Your task to perform on an android device: turn off picture-in-picture Image 0: 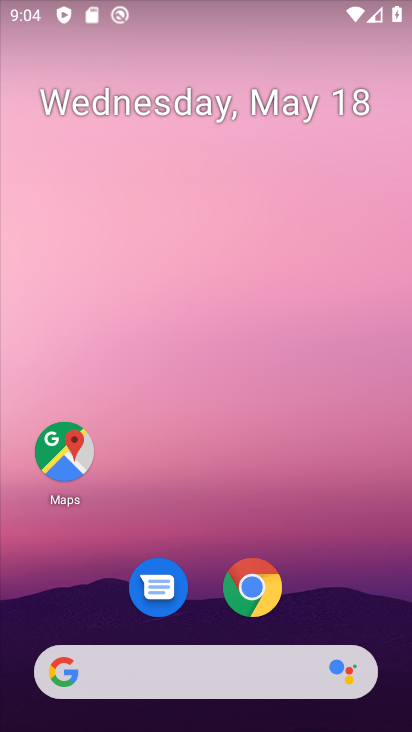
Step 0: drag from (384, 582) to (328, 135)
Your task to perform on an android device: turn off picture-in-picture Image 1: 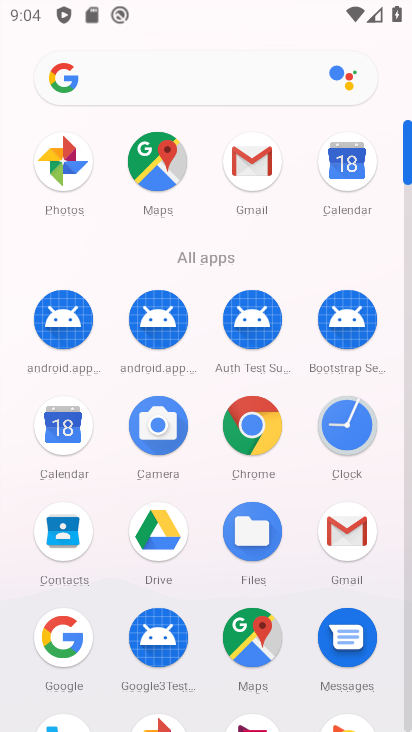
Step 1: drag from (303, 575) to (302, 257)
Your task to perform on an android device: turn off picture-in-picture Image 2: 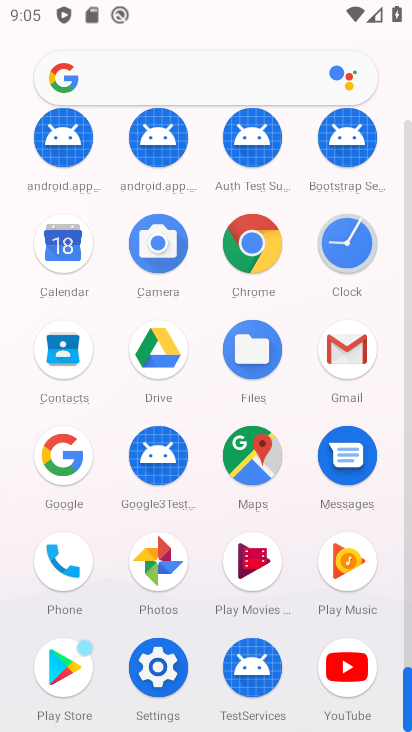
Step 2: click (150, 678)
Your task to perform on an android device: turn off picture-in-picture Image 3: 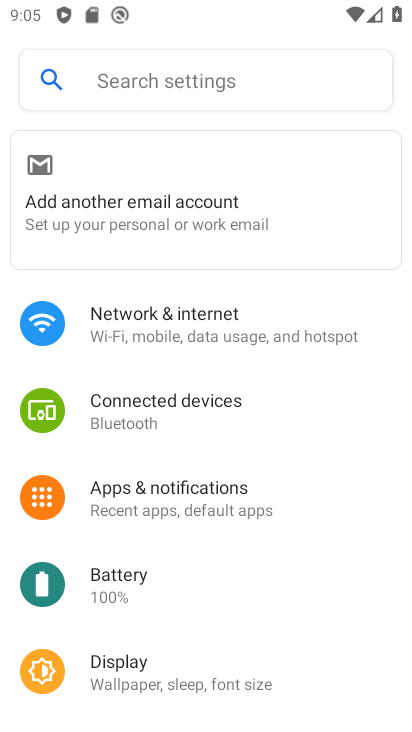
Step 3: drag from (248, 639) to (310, 273)
Your task to perform on an android device: turn off picture-in-picture Image 4: 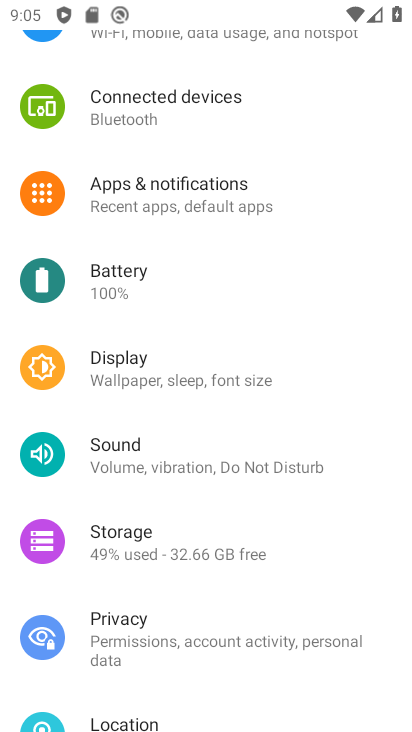
Step 4: drag from (310, 574) to (321, 310)
Your task to perform on an android device: turn off picture-in-picture Image 5: 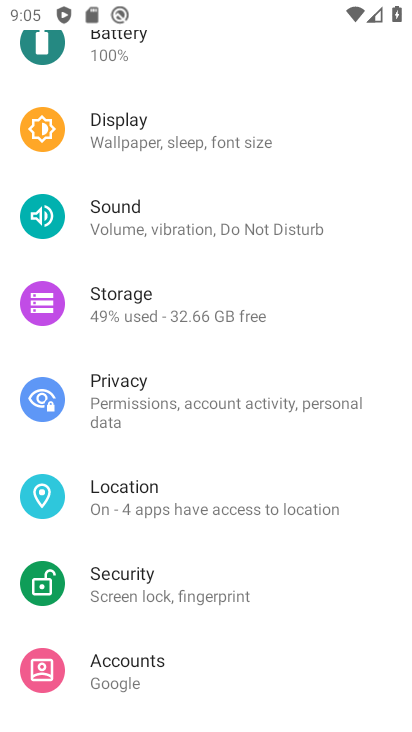
Step 5: drag from (304, 188) to (292, 572)
Your task to perform on an android device: turn off picture-in-picture Image 6: 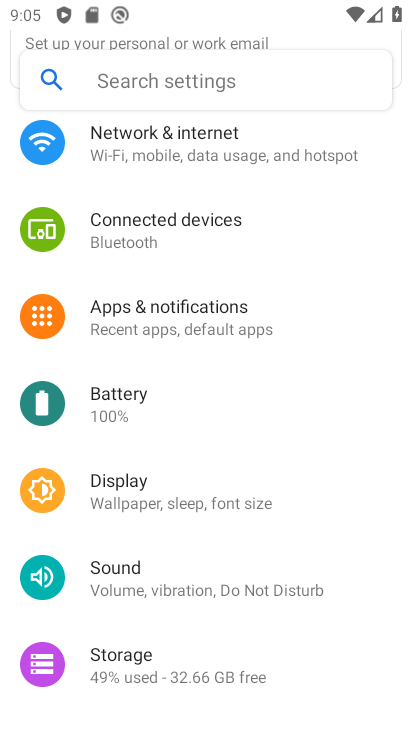
Step 6: click (203, 301)
Your task to perform on an android device: turn off picture-in-picture Image 7: 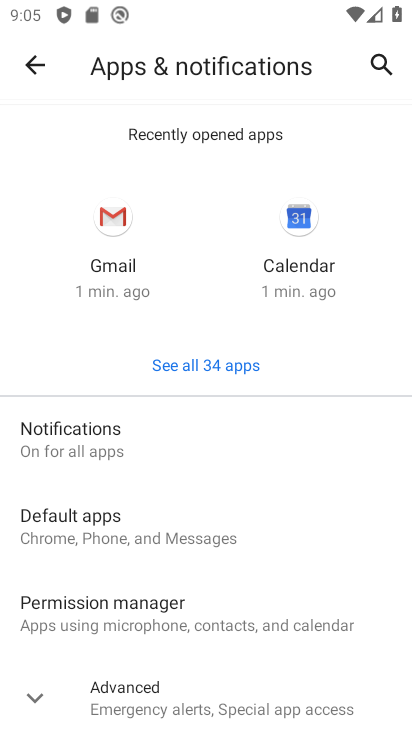
Step 7: drag from (275, 689) to (220, 255)
Your task to perform on an android device: turn off picture-in-picture Image 8: 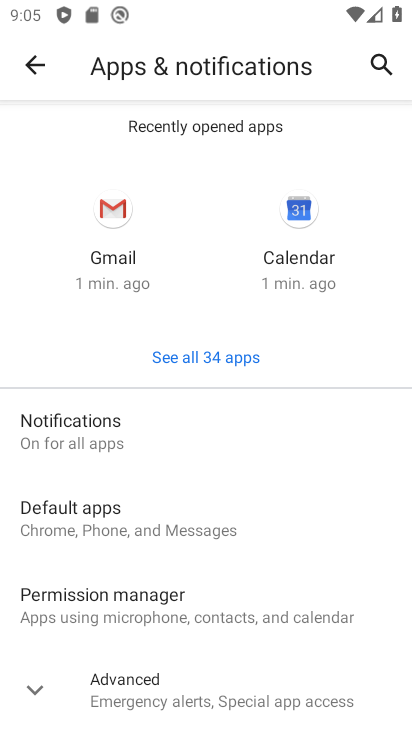
Step 8: click (221, 709)
Your task to perform on an android device: turn off picture-in-picture Image 9: 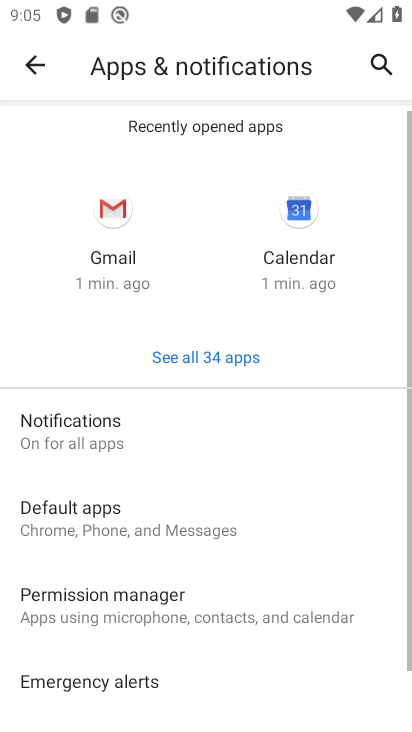
Step 9: drag from (236, 685) to (234, 320)
Your task to perform on an android device: turn off picture-in-picture Image 10: 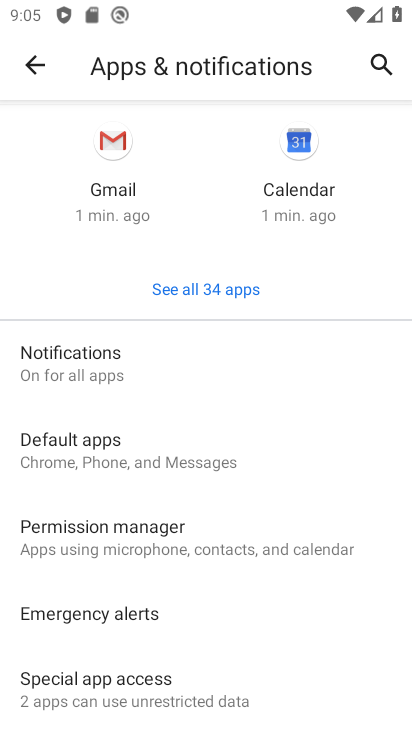
Step 10: click (184, 684)
Your task to perform on an android device: turn off picture-in-picture Image 11: 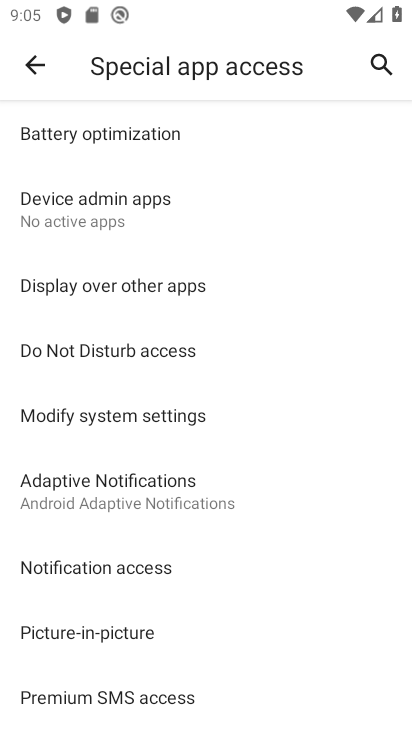
Step 11: click (180, 633)
Your task to perform on an android device: turn off picture-in-picture Image 12: 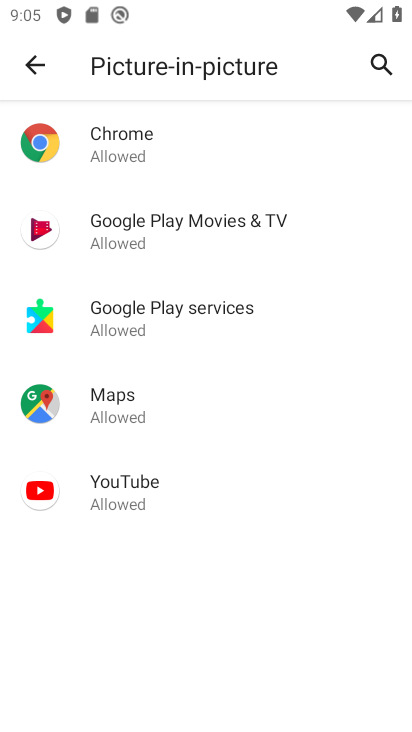
Step 12: click (203, 149)
Your task to perform on an android device: turn off picture-in-picture Image 13: 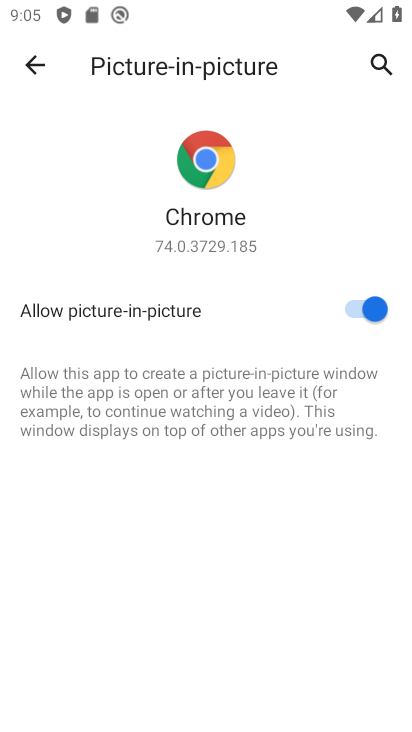
Step 13: click (352, 312)
Your task to perform on an android device: turn off picture-in-picture Image 14: 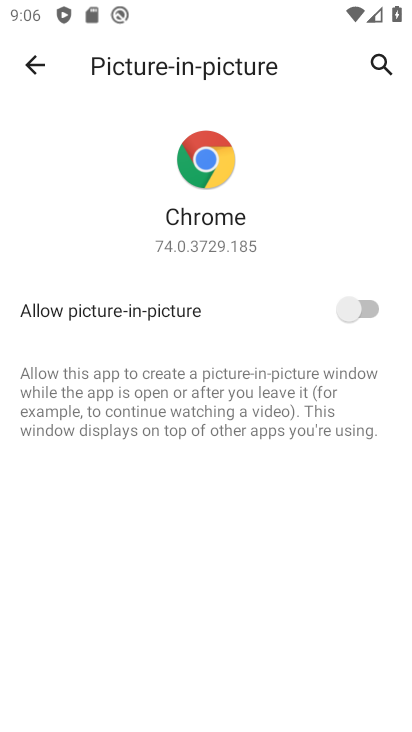
Step 14: task complete